Your task to perform on an android device: toggle improve location accuracy Image 0: 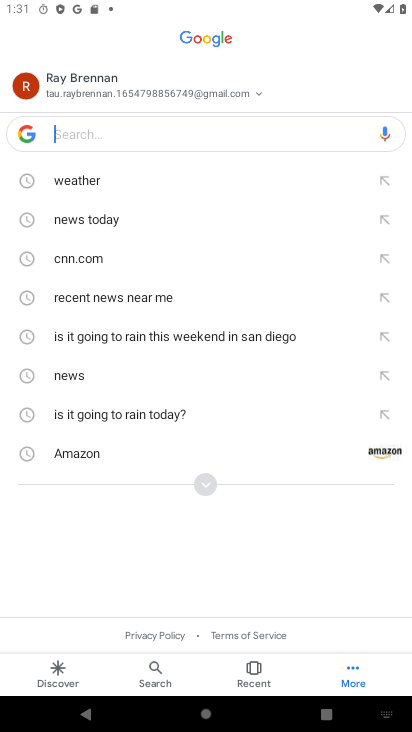
Step 0: press home button
Your task to perform on an android device: toggle improve location accuracy Image 1: 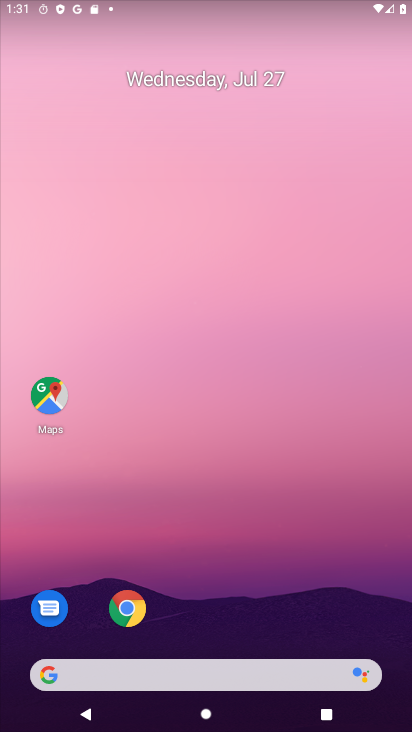
Step 1: drag from (186, 549) to (192, 125)
Your task to perform on an android device: toggle improve location accuracy Image 2: 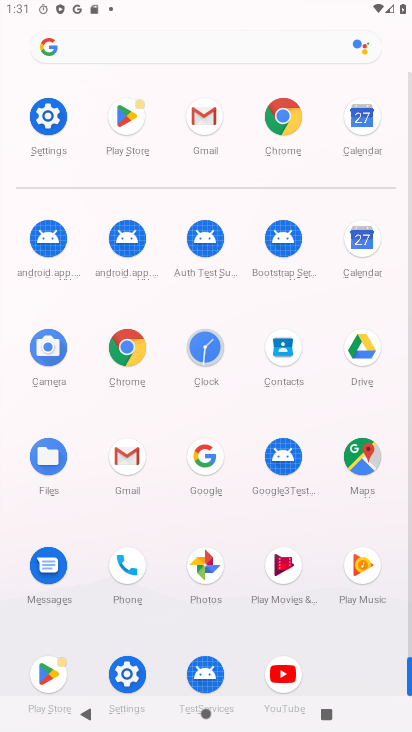
Step 2: click (51, 122)
Your task to perform on an android device: toggle improve location accuracy Image 3: 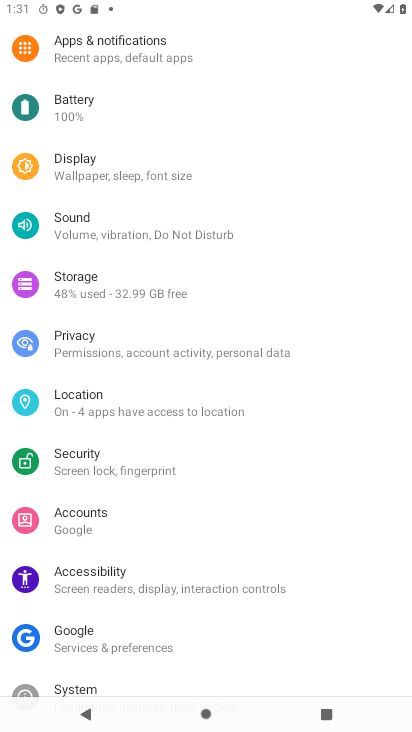
Step 3: click (110, 416)
Your task to perform on an android device: toggle improve location accuracy Image 4: 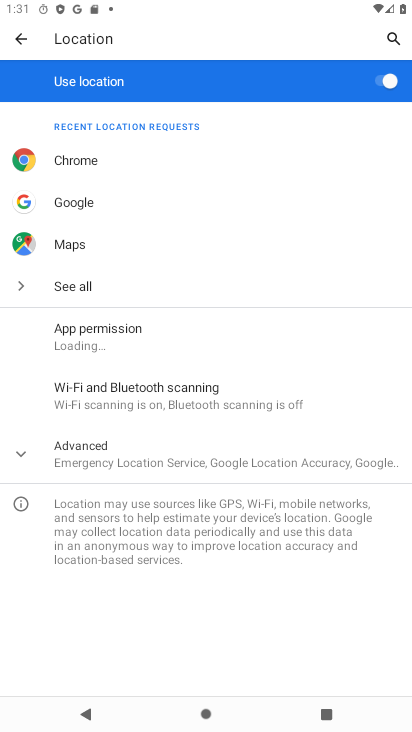
Step 4: click (79, 463)
Your task to perform on an android device: toggle improve location accuracy Image 5: 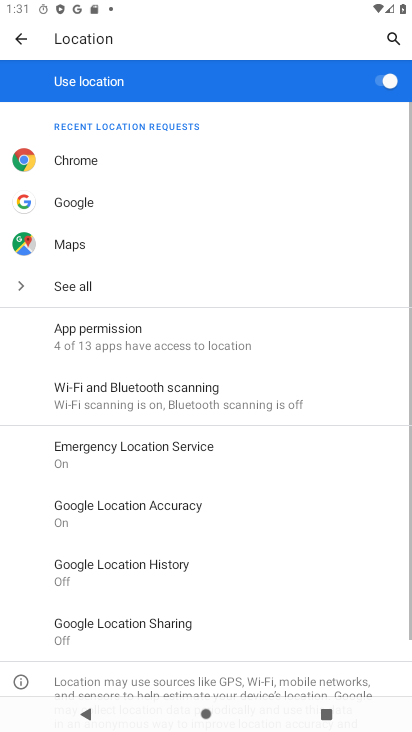
Step 5: click (140, 499)
Your task to perform on an android device: toggle improve location accuracy Image 6: 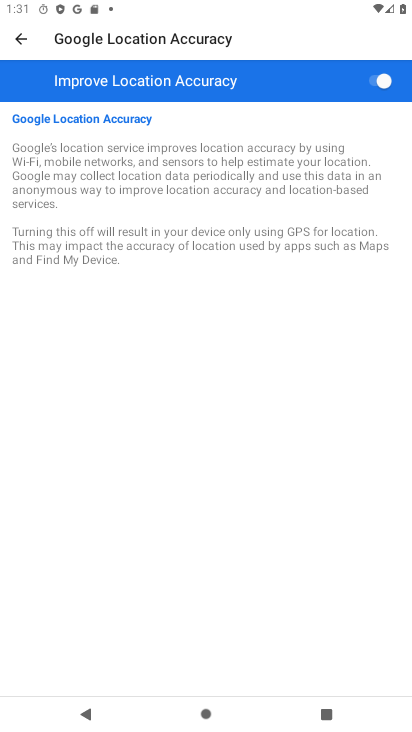
Step 6: click (374, 89)
Your task to perform on an android device: toggle improve location accuracy Image 7: 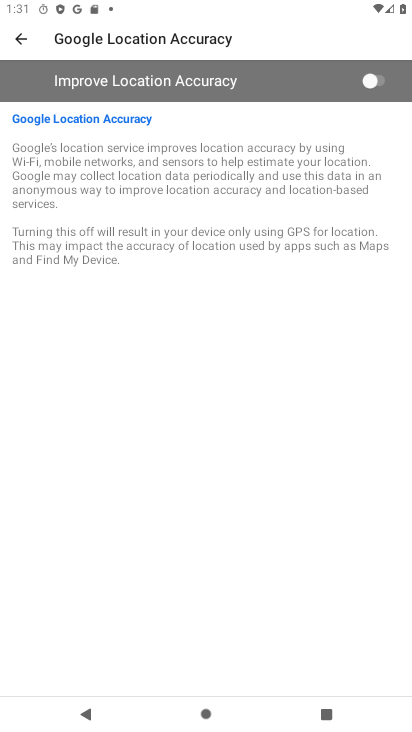
Step 7: task complete